Your task to perform on an android device: Search for seafood restaurants on Google Maps Image 0: 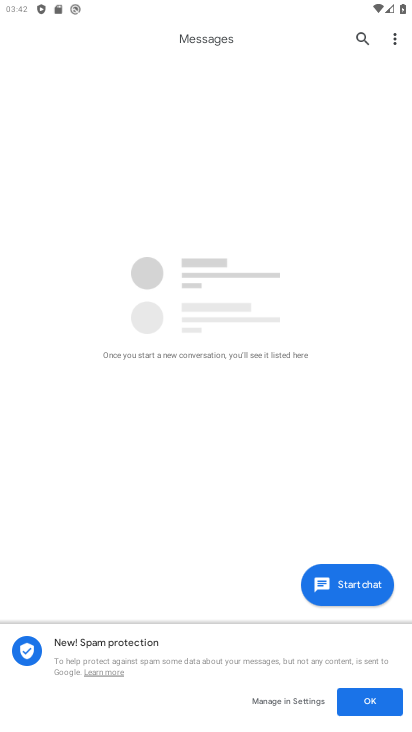
Step 0: press home button
Your task to perform on an android device: Search for seafood restaurants on Google Maps Image 1: 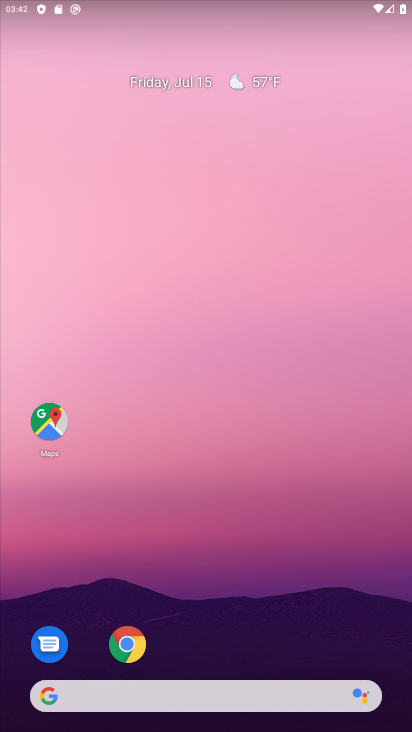
Step 1: click (53, 421)
Your task to perform on an android device: Search for seafood restaurants on Google Maps Image 2: 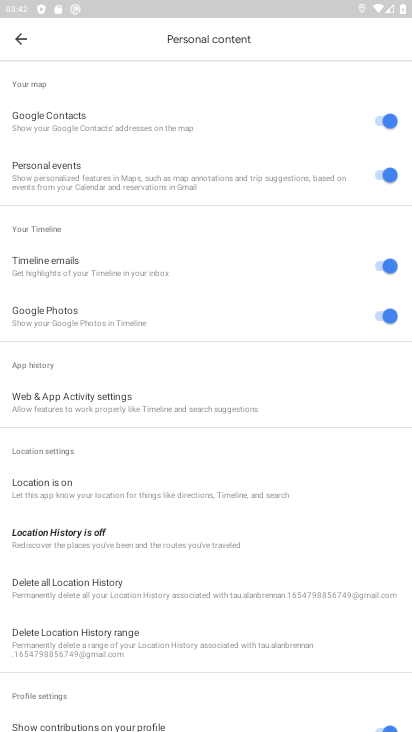
Step 2: click (22, 38)
Your task to perform on an android device: Search for seafood restaurants on Google Maps Image 3: 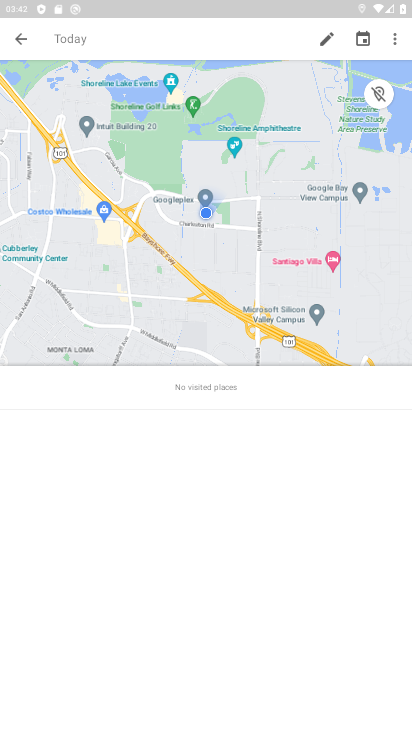
Step 3: click (21, 39)
Your task to perform on an android device: Search for seafood restaurants on Google Maps Image 4: 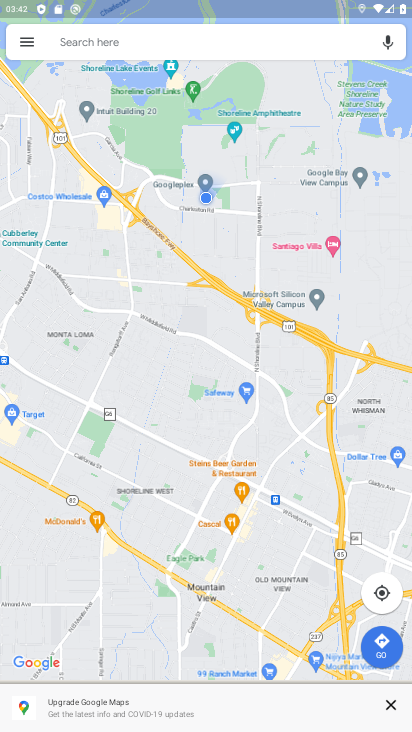
Step 4: click (170, 50)
Your task to perform on an android device: Search for seafood restaurants on Google Maps Image 5: 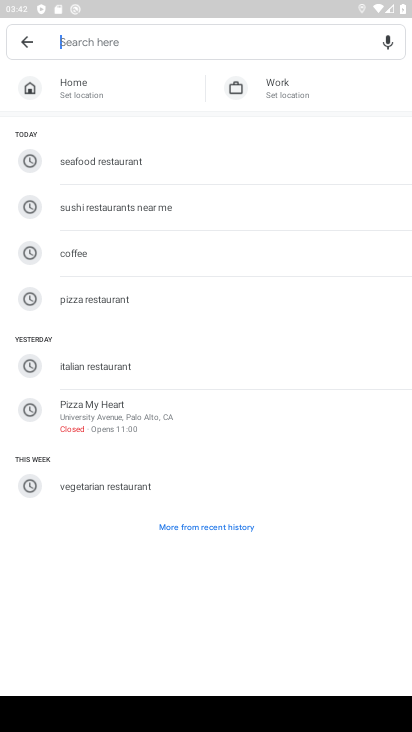
Step 5: type "seafood restaurants"
Your task to perform on an android device: Search for seafood restaurants on Google Maps Image 6: 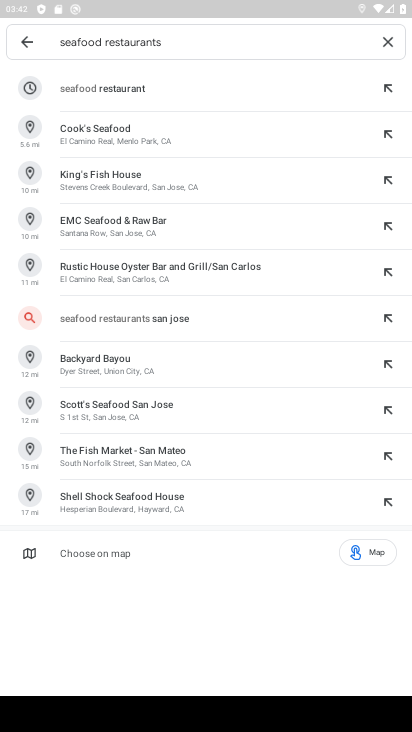
Step 6: click (195, 95)
Your task to perform on an android device: Search for seafood restaurants on Google Maps Image 7: 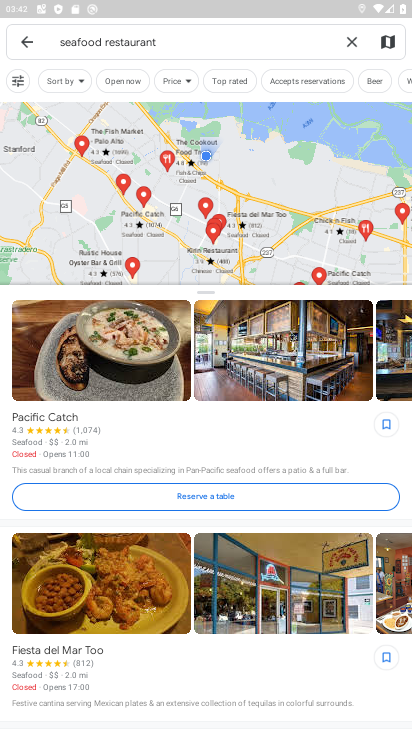
Step 7: task complete